Your task to perform on an android device: check out phone information Image 0: 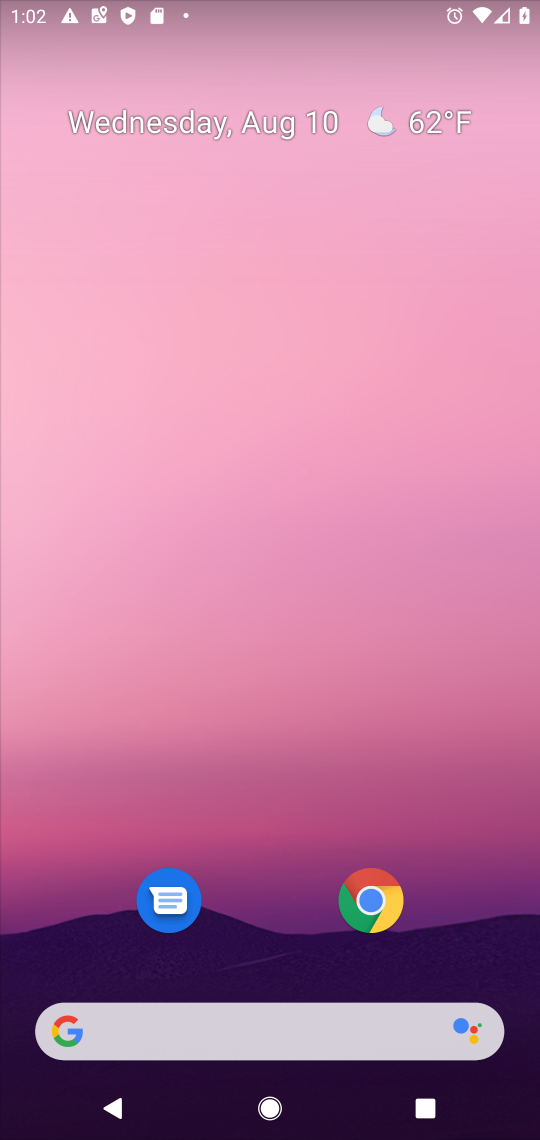
Step 0: drag from (326, 504) to (323, 27)
Your task to perform on an android device: check out phone information Image 1: 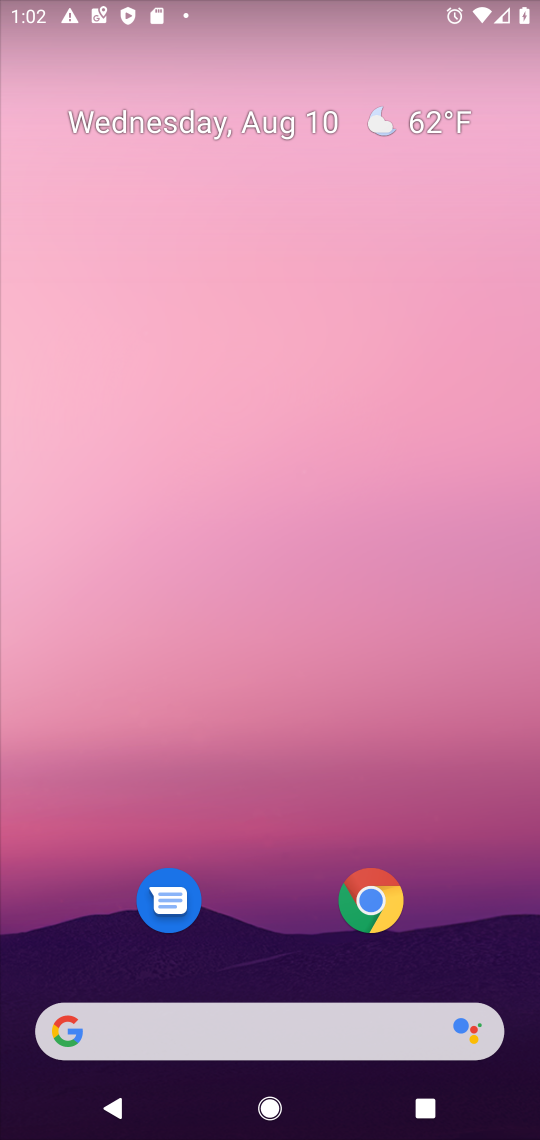
Step 1: drag from (262, 891) to (313, 5)
Your task to perform on an android device: check out phone information Image 2: 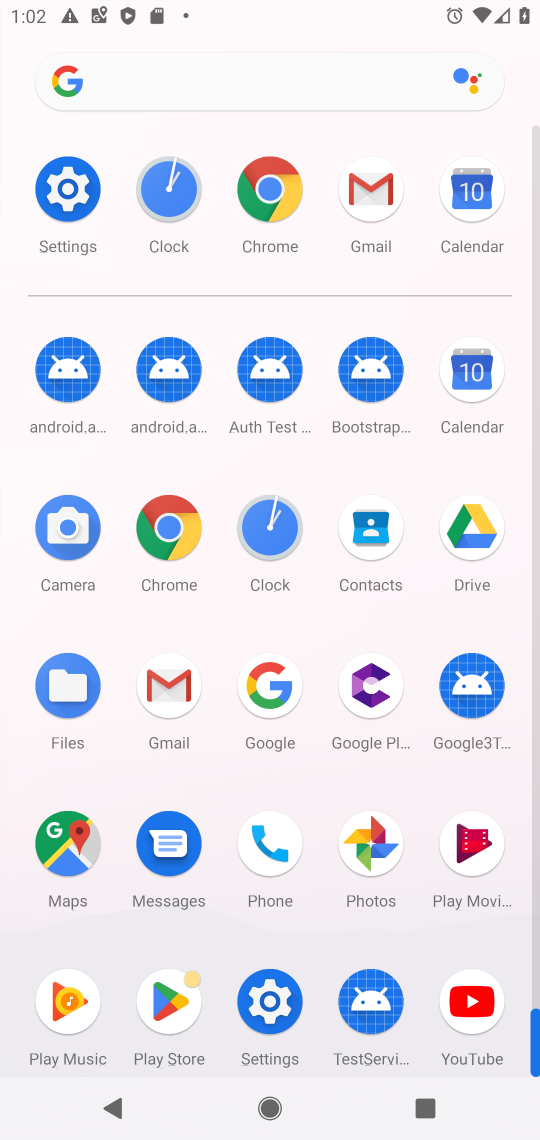
Step 2: click (273, 844)
Your task to perform on an android device: check out phone information Image 3: 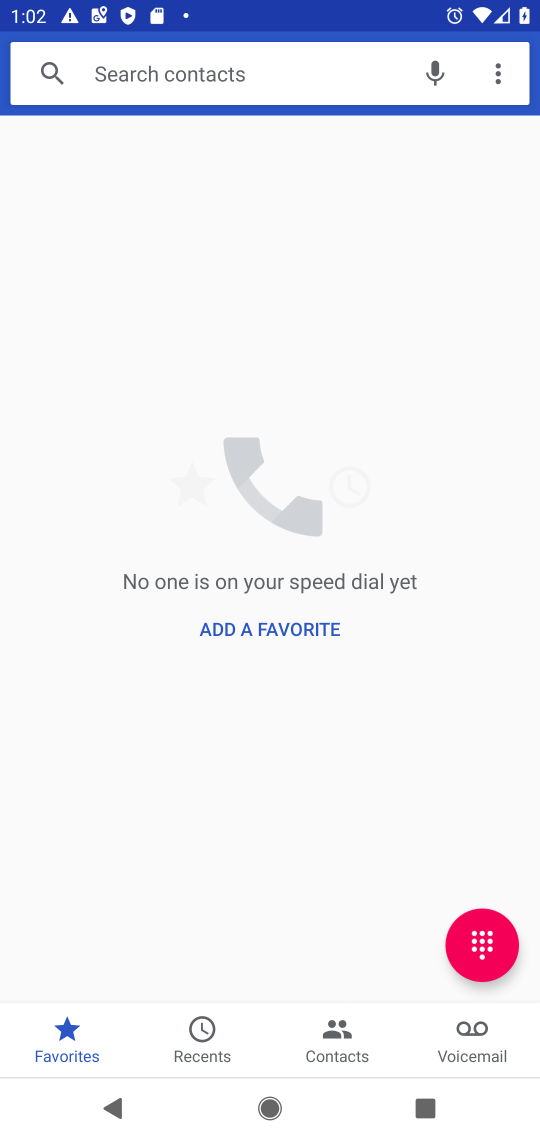
Step 3: click (499, 74)
Your task to perform on an android device: check out phone information Image 4: 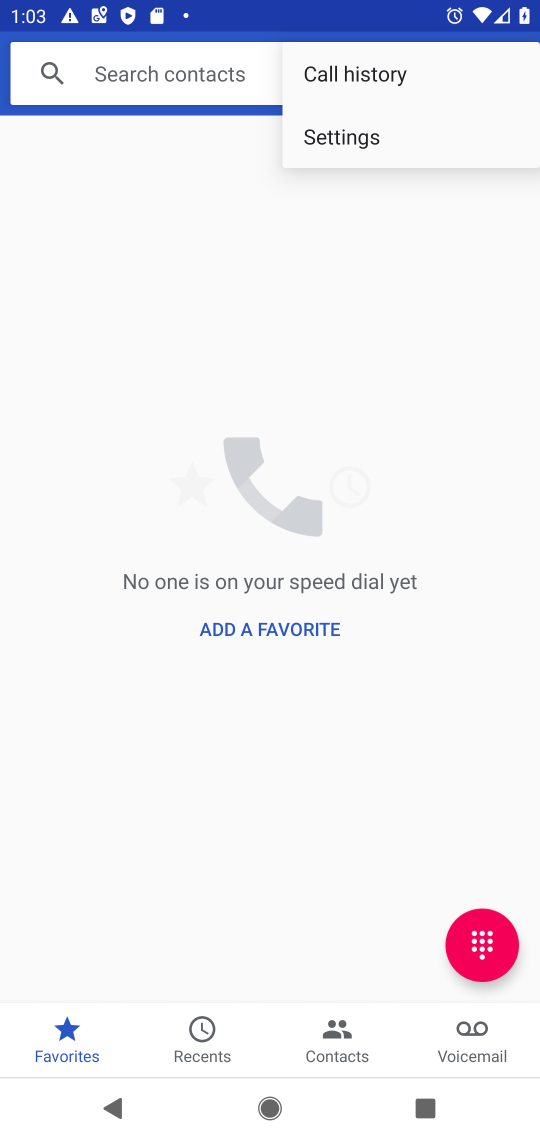
Step 4: click (366, 134)
Your task to perform on an android device: check out phone information Image 5: 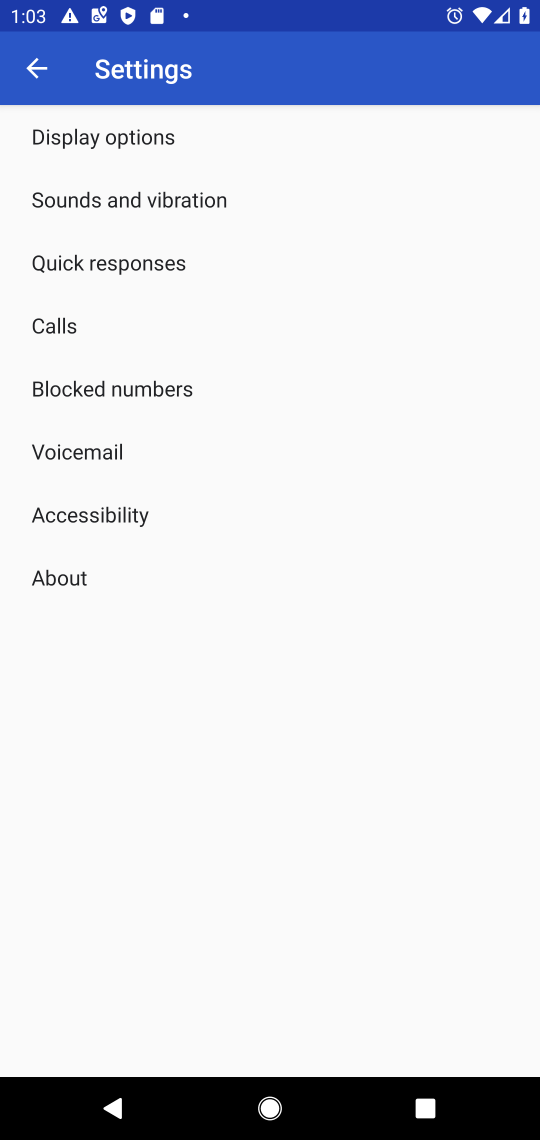
Step 5: click (76, 571)
Your task to perform on an android device: check out phone information Image 6: 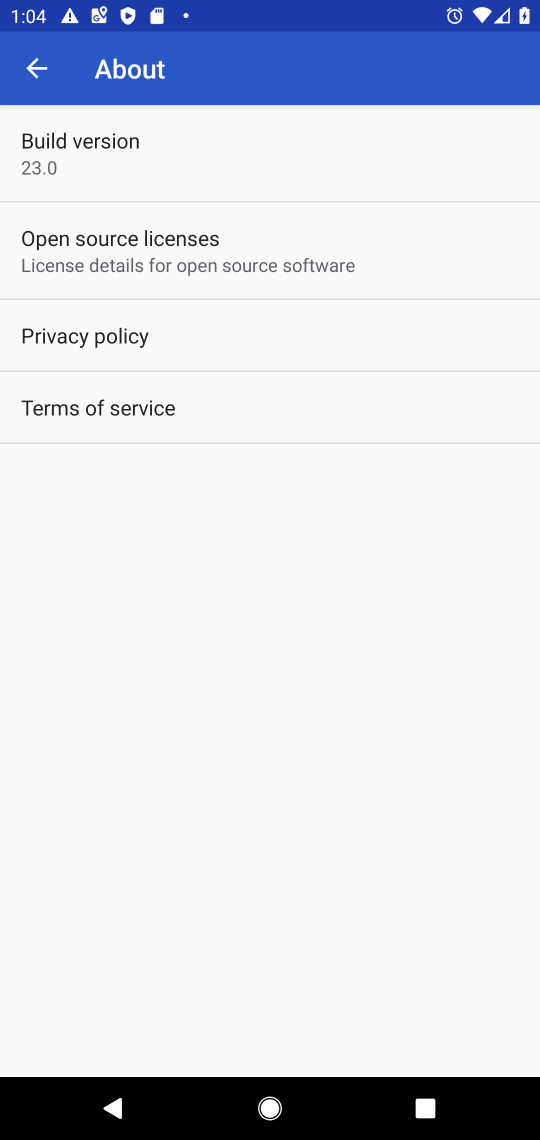
Step 6: task complete